Your task to perform on an android device: turn on showing notifications on the lock screen Image 0: 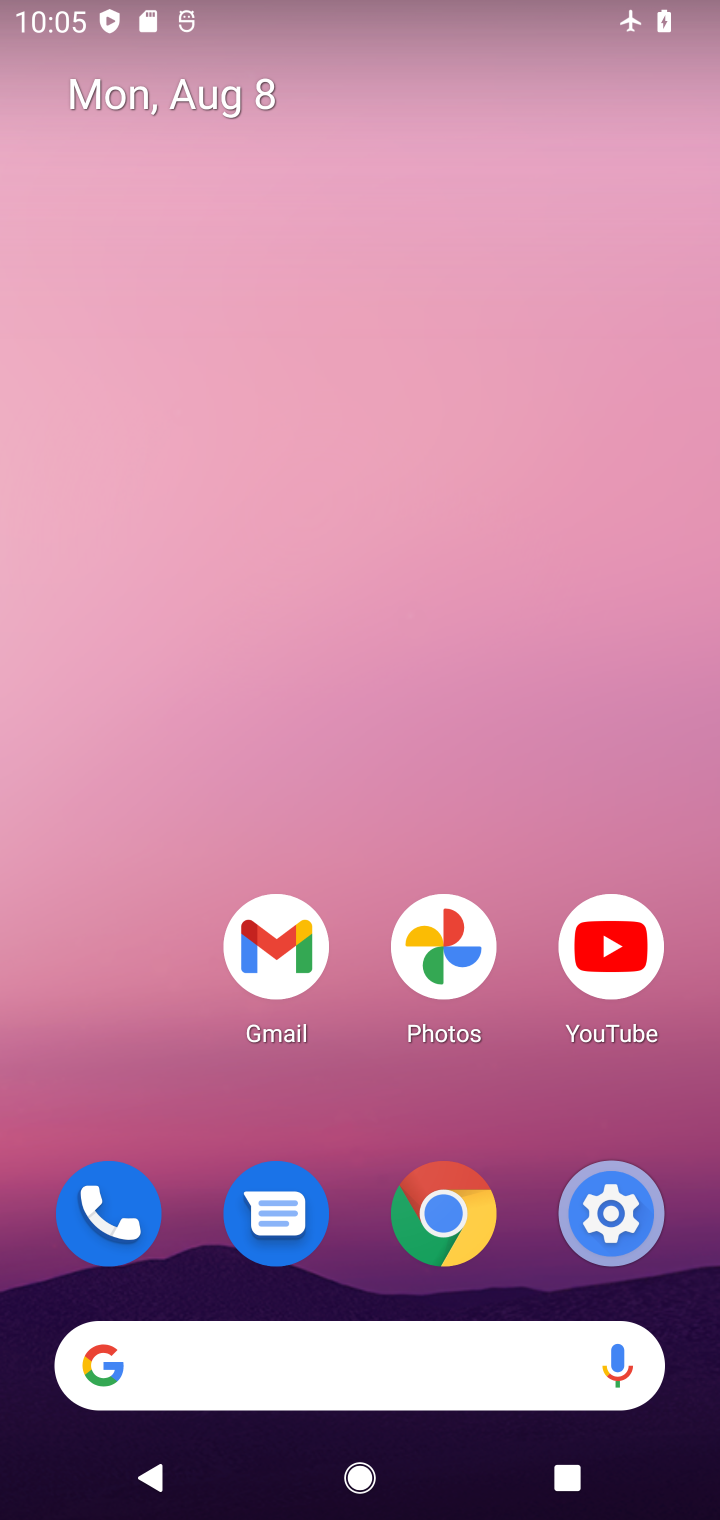
Step 0: drag from (377, 1015) to (480, 78)
Your task to perform on an android device: turn on showing notifications on the lock screen Image 1: 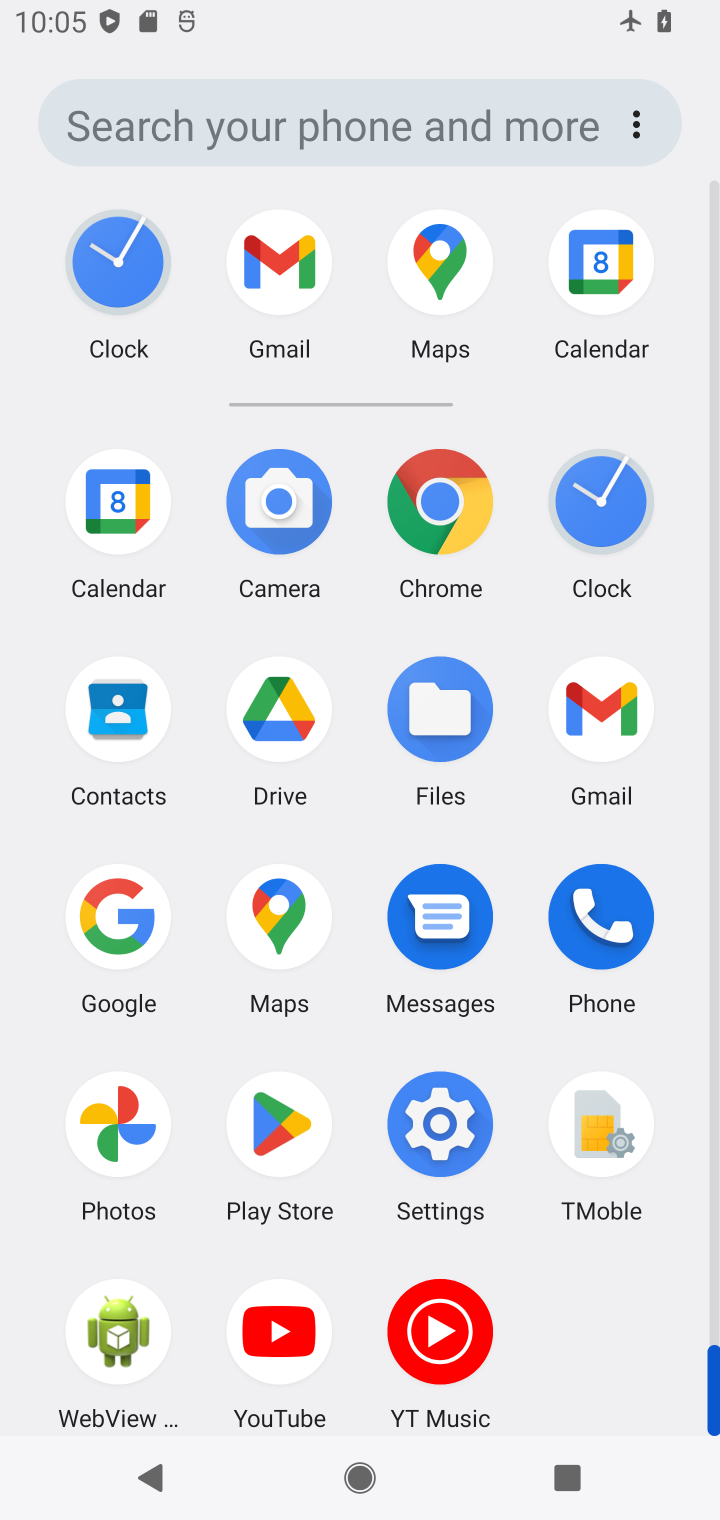
Step 1: click (417, 1142)
Your task to perform on an android device: turn on showing notifications on the lock screen Image 2: 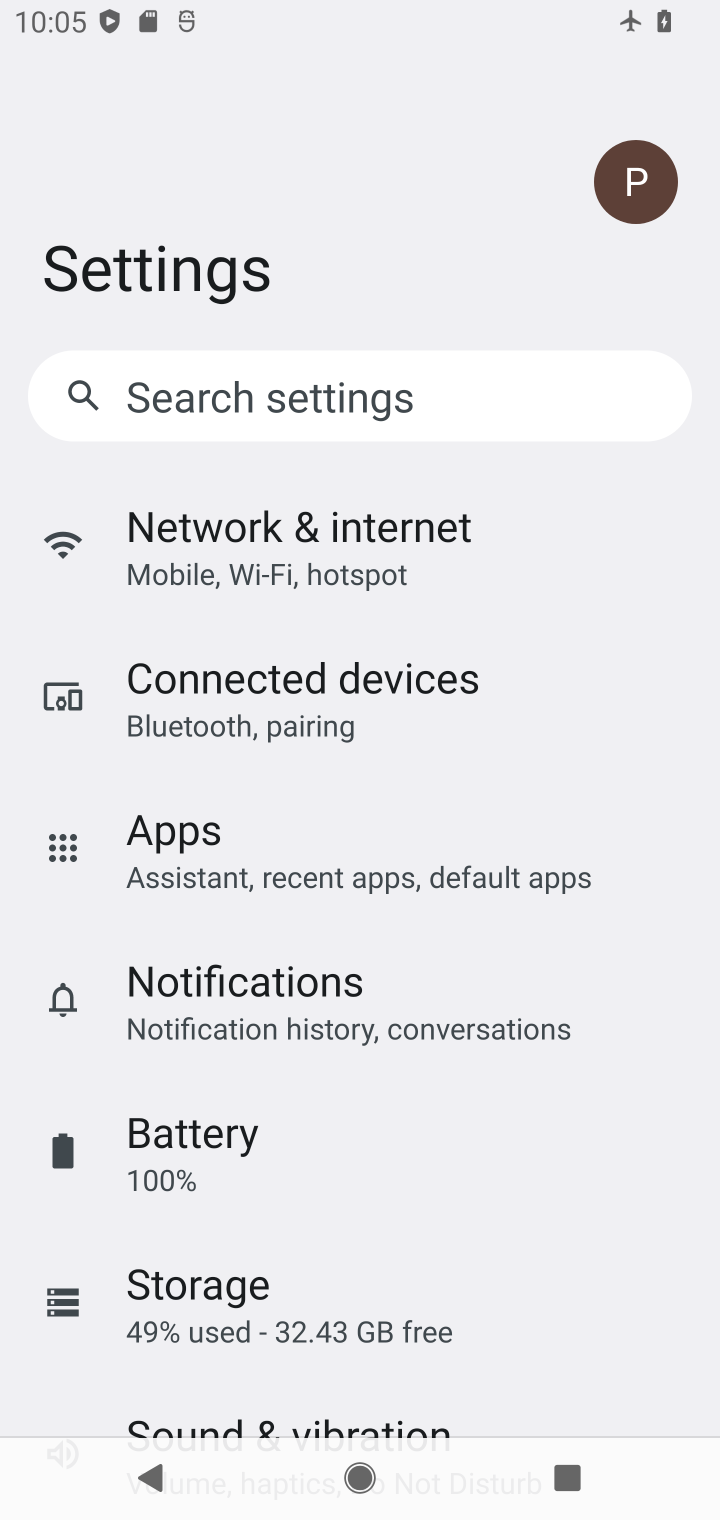
Step 2: click (393, 1028)
Your task to perform on an android device: turn on showing notifications on the lock screen Image 3: 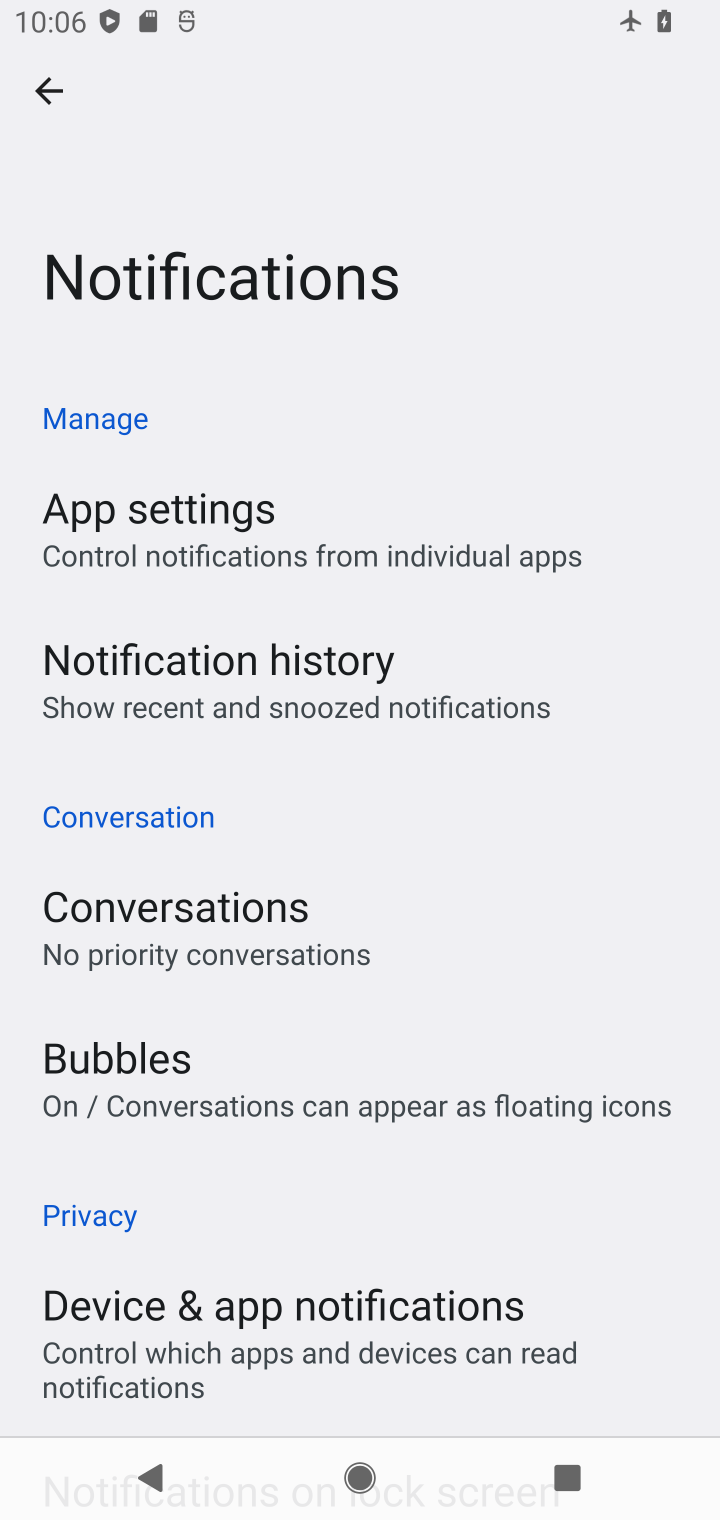
Step 3: drag from (415, 905) to (426, 488)
Your task to perform on an android device: turn on showing notifications on the lock screen Image 4: 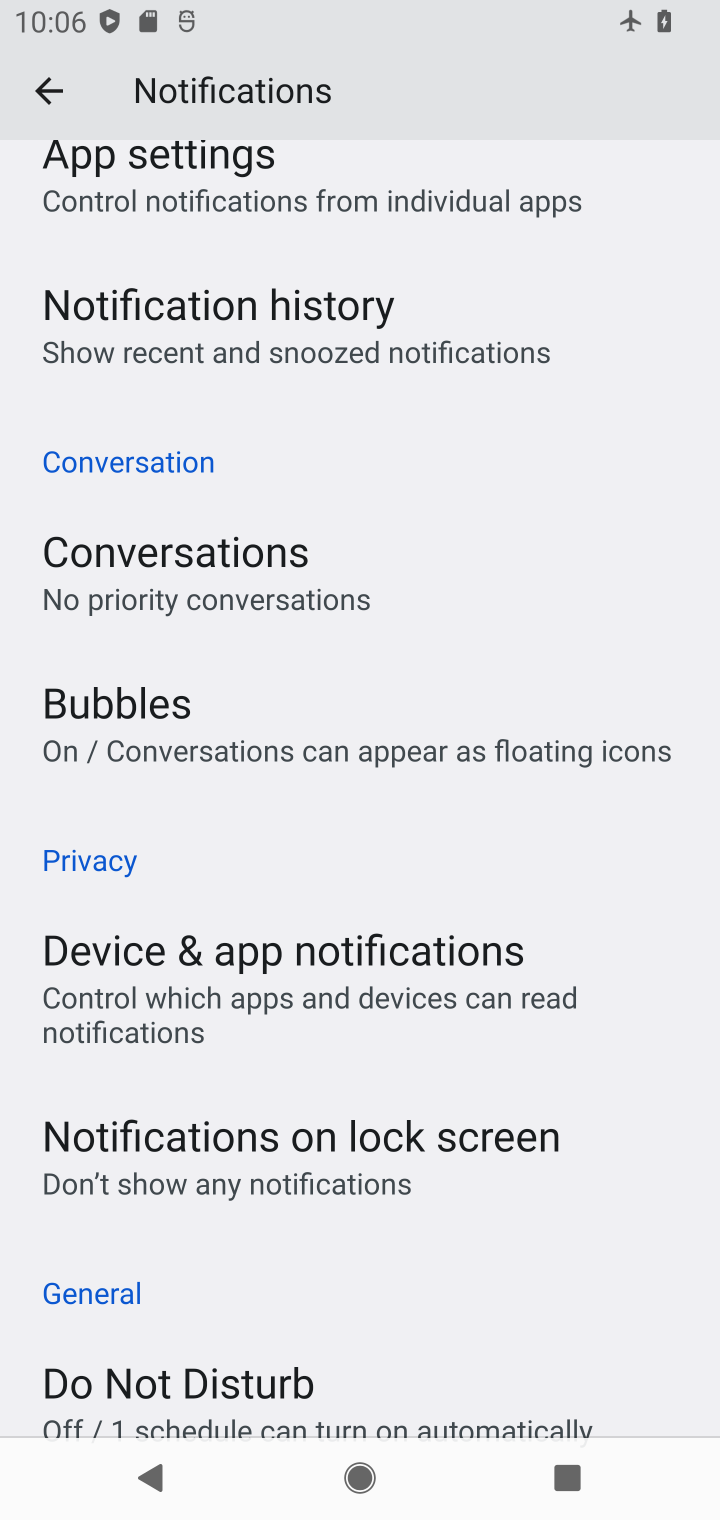
Step 4: click (393, 1167)
Your task to perform on an android device: turn on showing notifications on the lock screen Image 5: 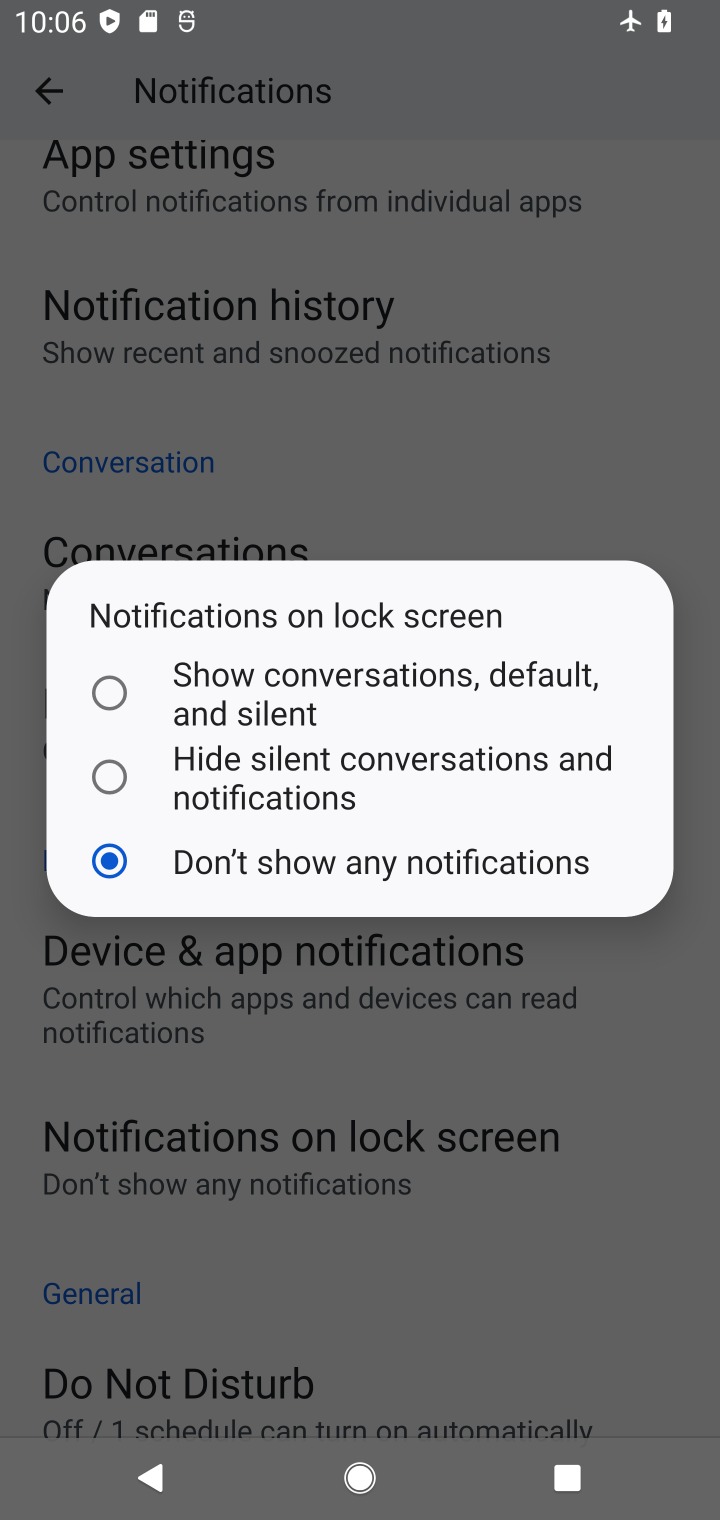
Step 5: click (296, 675)
Your task to perform on an android device: turn on showing notifications on the lock screen Image 6: 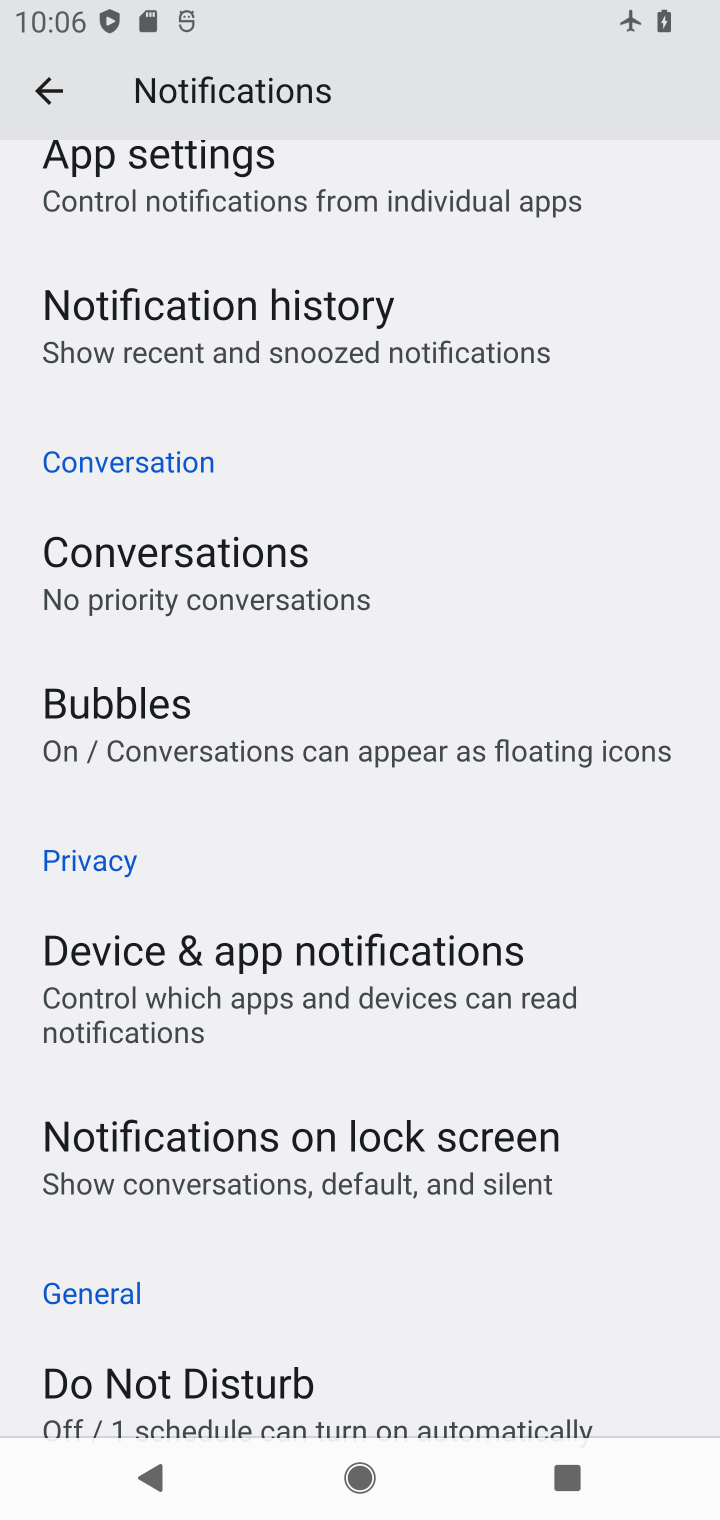
Step 6: task complete